Your task to perform on an android device: Open Yahoo.com Image 0: 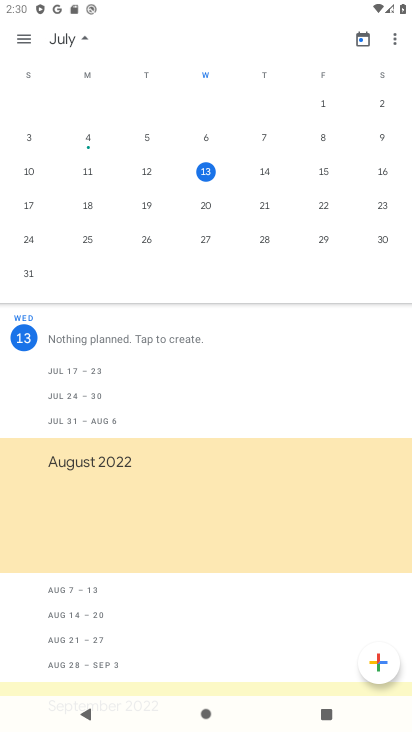
Step 0: press home button
Your task to perform on an android device: Open Yahoo.com Image 1: 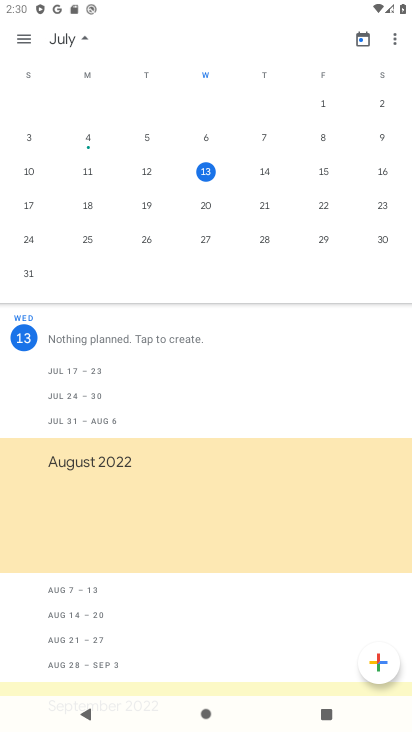
Step 1: press home button
Your task to perform on an android device: Open Yahoo.com Image 2: 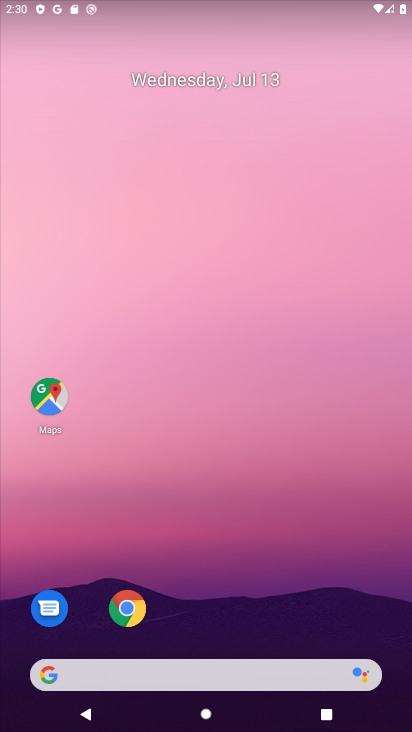
Step 2: click (127, 619)
Your task to perform on an android device: Open Yahoo.com Image 3: 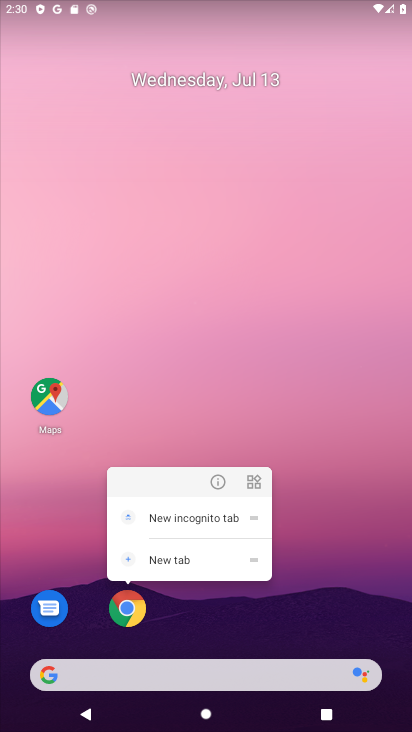
Step 3: click (128, 613)
Your task to perform on an android device: Open Yahoo.com Image 4: 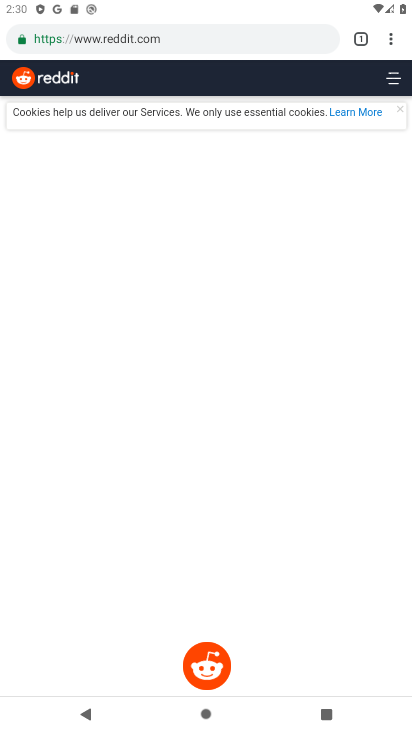
Step 4: click (372, 38)
Your task to perform on an android device: Open Yahoo.com Image 5: 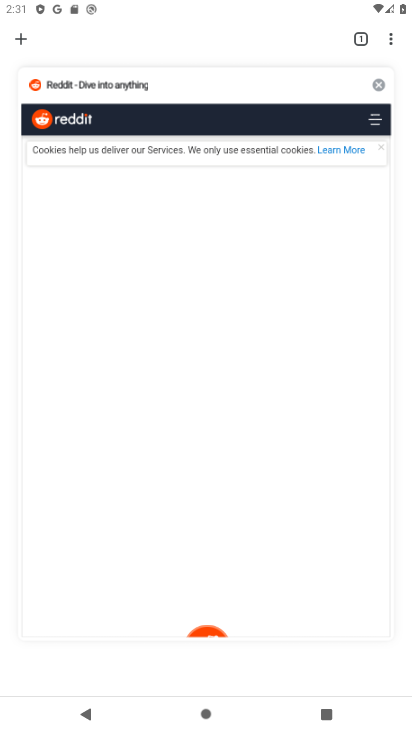
Step 5: click (361, 49)
Your task to perform on an android device: Open Yahoo.com Image 6: 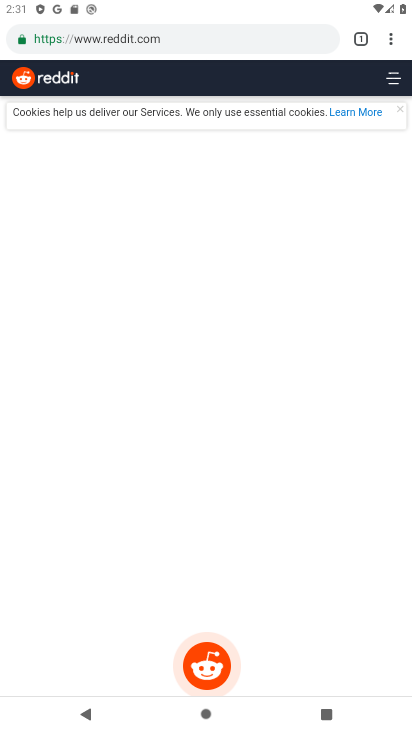
Step 6: click (366, 41)
Your task to perform on an android device: Open Yahoo.com Image 7: 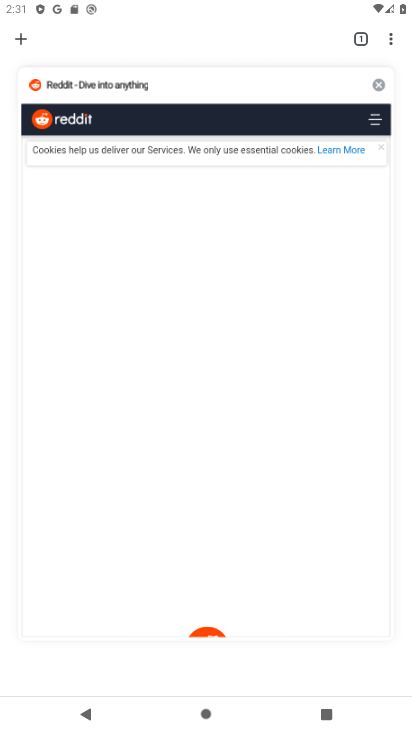
Step 7: click (25, 39)
Your task to perform on an android device: Open Yahoo.com Image 8: 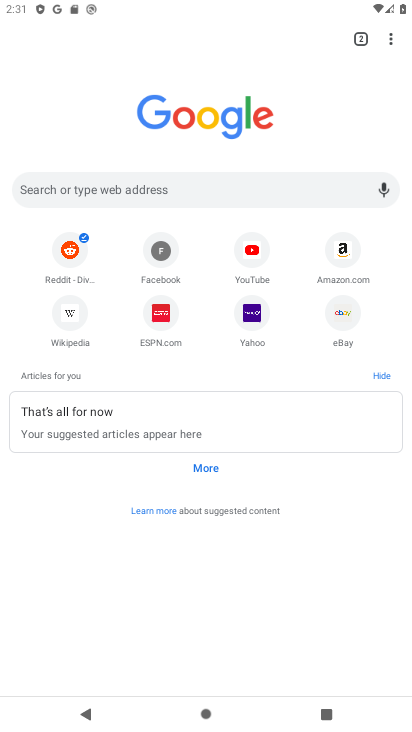
Step 8: click (255, 312)
Your task to perform on an android device: Open Yahoo.com Image 9: 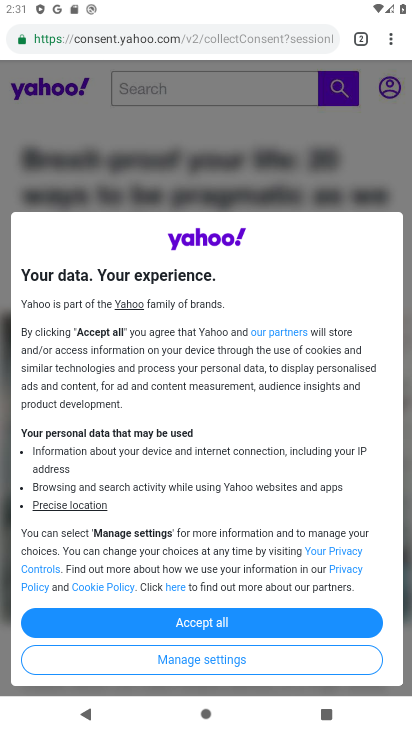
Step 9: task complete